Your task to perform on an android device: What's the weather going to be this weekend? Image 0: 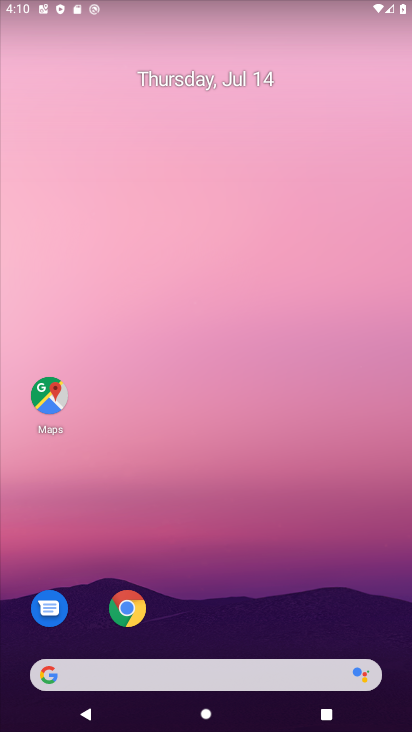
Step 0: click (196, 677)
Your task to perform on an android device: What's the weather going to be this weekend? Image 1: 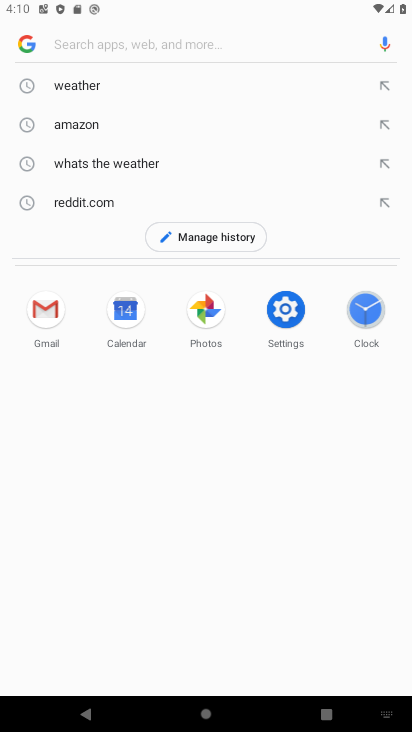
Step 1: click (102, 73)
Your task to perform on an android device: What's the weather going to be this weekend? Image 2: 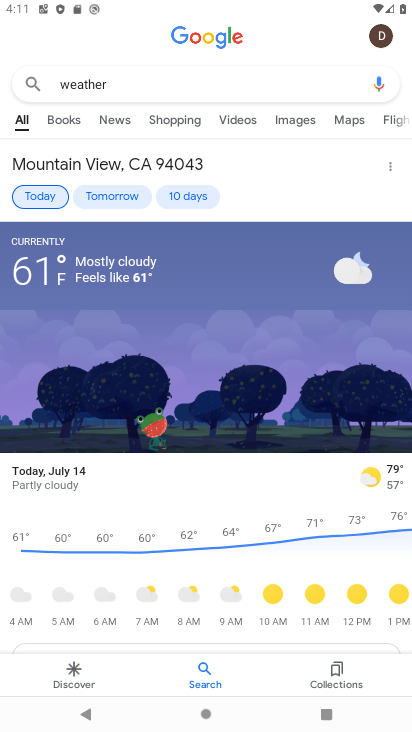
Step 2: click (170, 193)
Your task to perform on an android device: What's the weather going to be this weekend? Image 3: 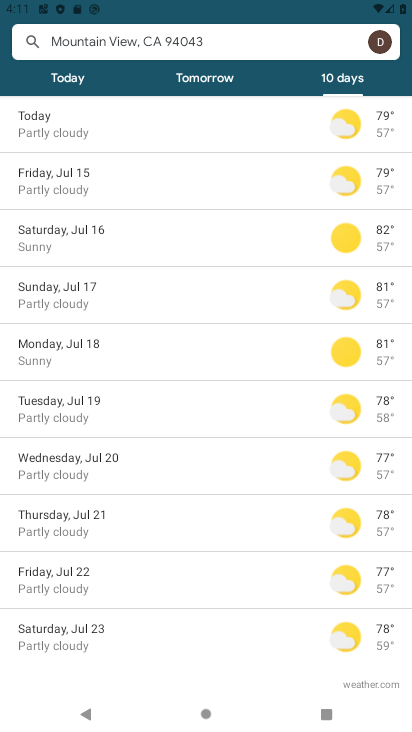
Step 3: task complete